Your task to perform on an android device: set default search engine in the chrome app Image 0: 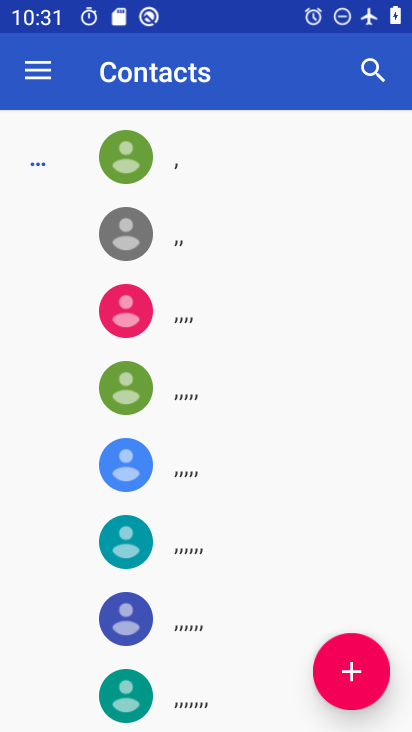
Step 0: press home button
Your task to perform on an android device: set default search engine in the chrome app Image 1: 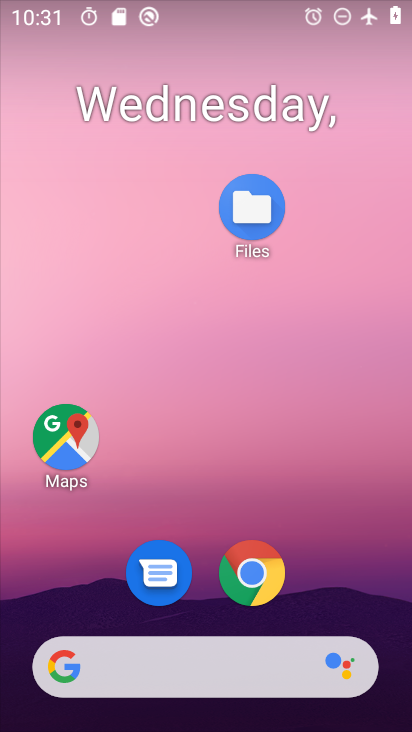
Step 1: drag from (342, 515) to (344, 347)
Your task to perform on an android device: set default search engine in the chrome app Image 2: 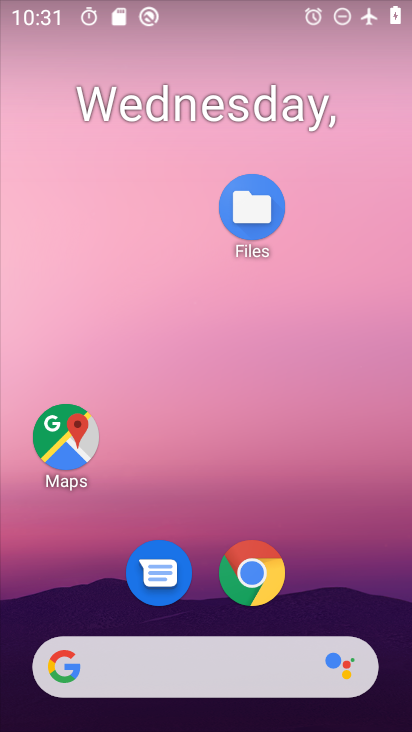
Step 2: click (266, 580)
Your task to perform on an android device: set default search engine in the chrome app Image 3: 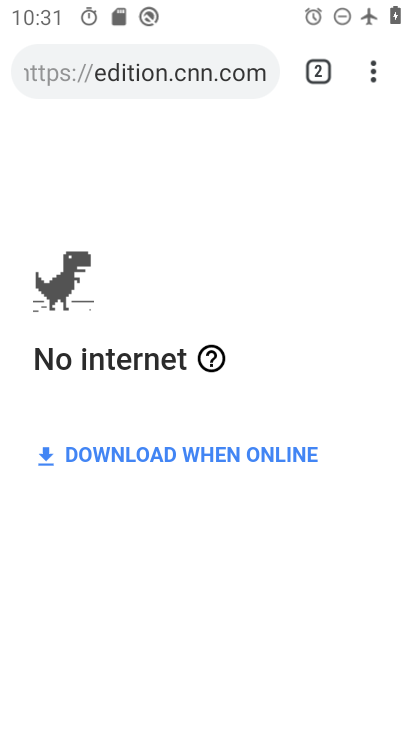
Step 3: click (376, 71)
Your task to perform on an android device: set default search engine in the chrome app Image 4: 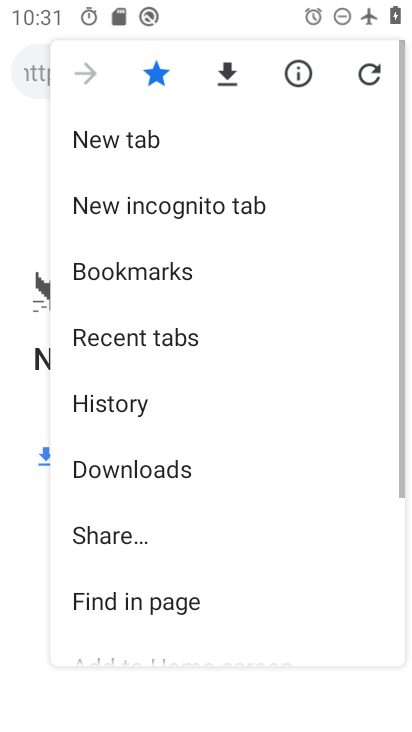
Step 4: drag from (285, 564) to (303, 312)
Your task to perform on an android device: set default search engine in the chrome app Image 5: 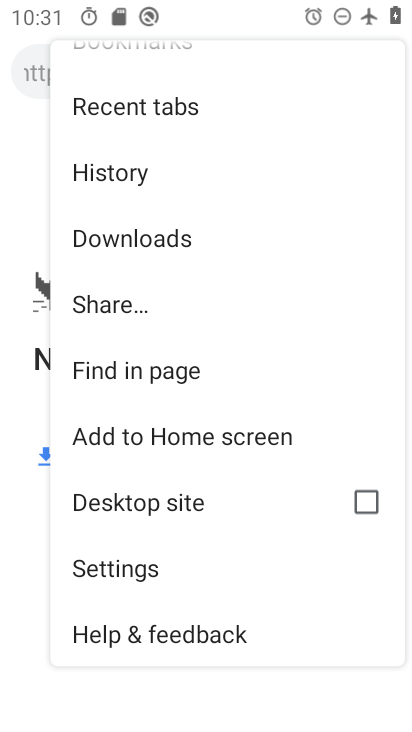
Step 5: click (201, 575)
Your task to perform on an android device: set default search engine in the chrome app Image 6: 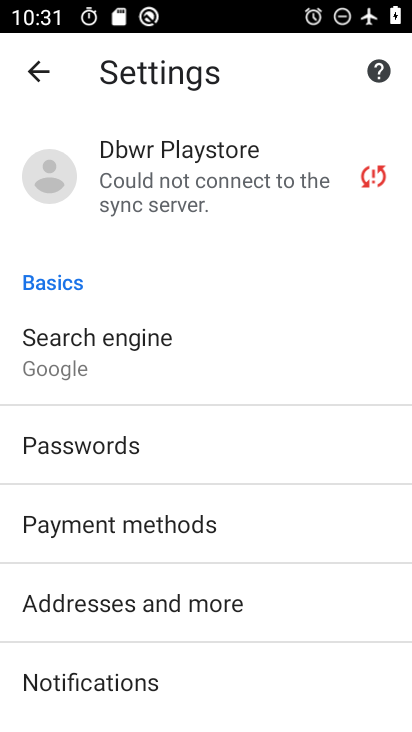
Step 6: drag from (198, 681) to (217, 525)
Your task to perform on an android device: set default search engine in the chrome app Image 7: 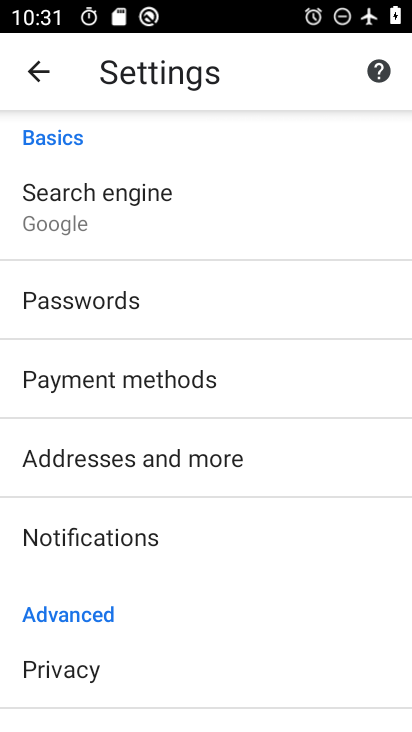
Step 7: click (167, 217)
Your task to perform on an android device: set default search engine in the chrome app Image 8: 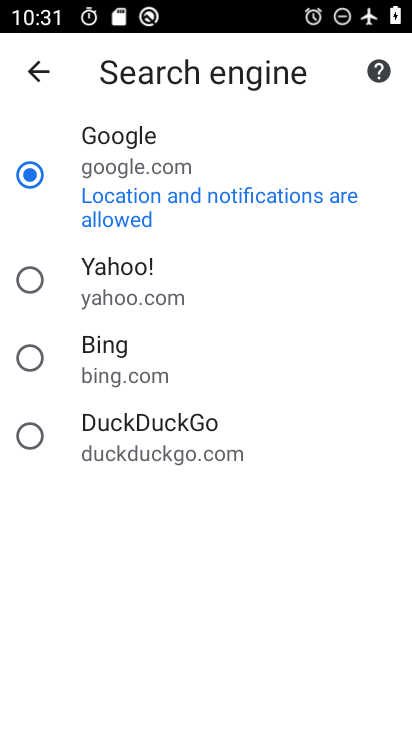
Step 8: task complete